Your task to perform on an android device: Turn off the flashlight Image 0: 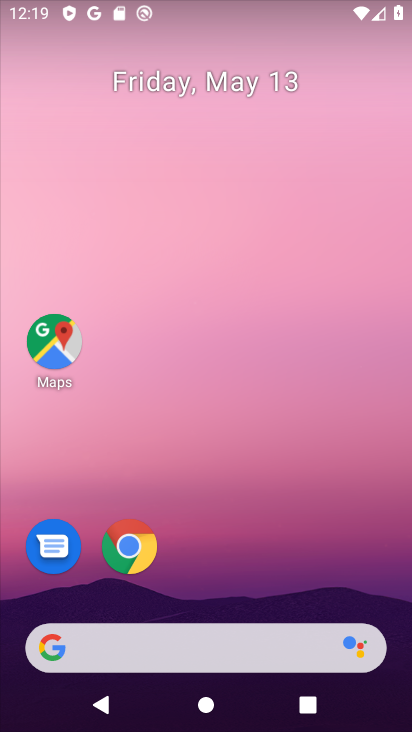
Step 0: drag from (272, 599) to (184, 93)
Your task to perform on an android device: Turn off the flashlight Image 1: 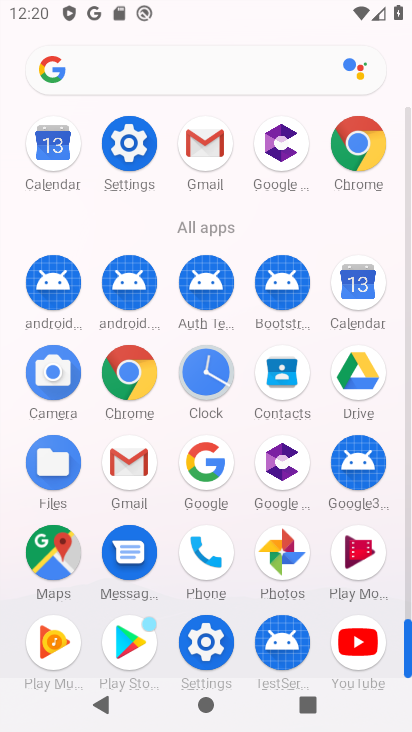
Step 1: drag from (236, 496) to (192, 76)
Your task to perform on an android device: Turn off the flashlight Image 2: 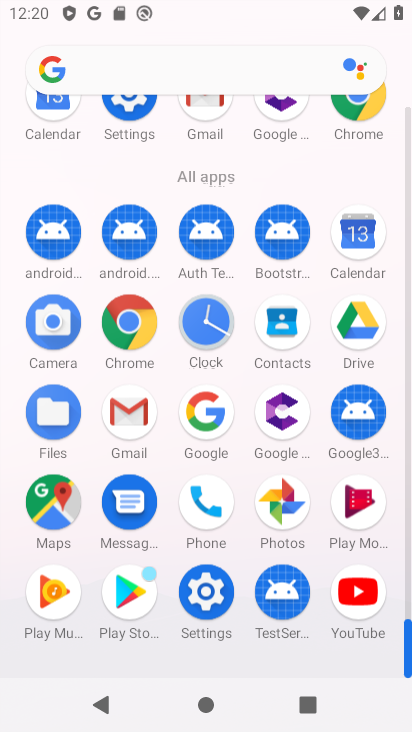
Step 2: drag from (249, 533) to (195, 125)
Your task to perform on an android device: Turn off the flashlight Image 3: 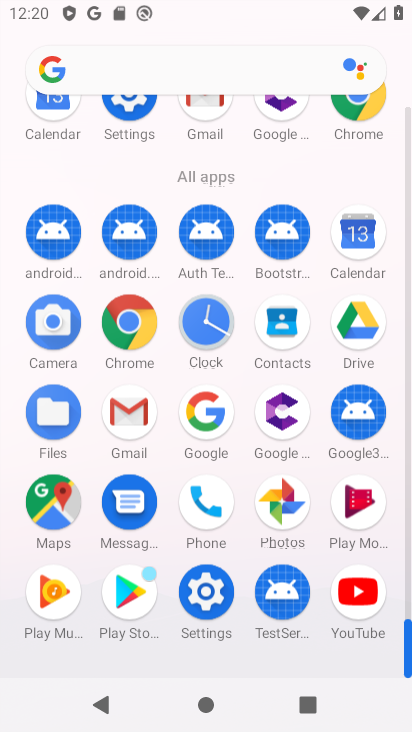
Step 3: drag from (188, 568) to (217, 159)
Your task to perform on an android device: Turn off the flashlight Image 4: 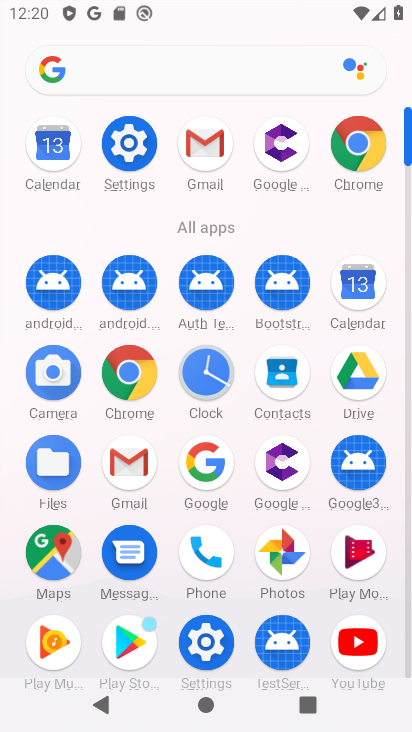
Step 4: drag from (222, 483) to (166, 172)
Your task to perform on an android device: Turn off the flashlight Image 5: 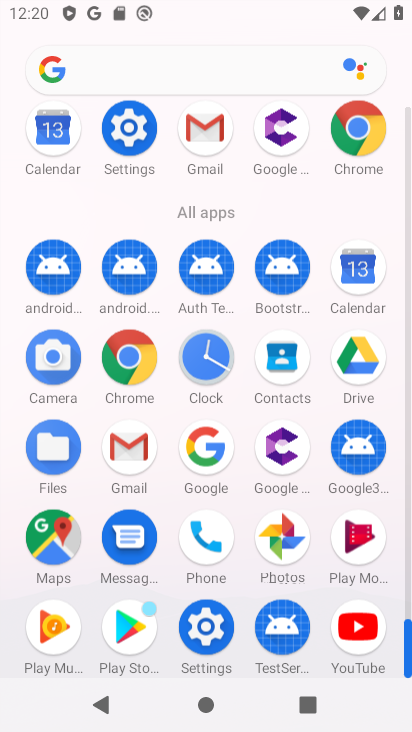
Step 5: drag from (195, 464) to (170, 177)
Your task to perform on an android device: Turn off the flashlight Image 6: 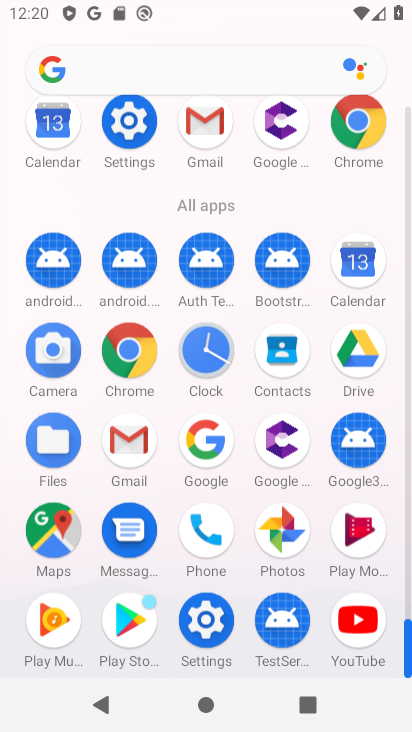
Step 6: drag from (260, 482) to (227, 89)
Your task to perform on an android device: Turn off the flashlight Image 7: 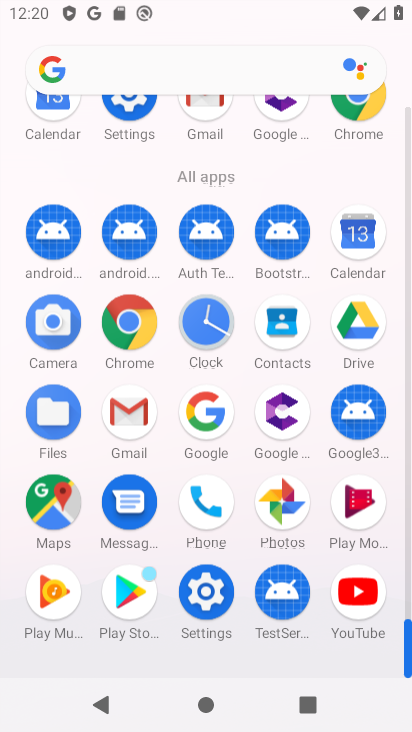
Step 7: drag from (260, 363) to (192, 100)
Your task to perform on an android device: Turn off the flashlight Image 8: 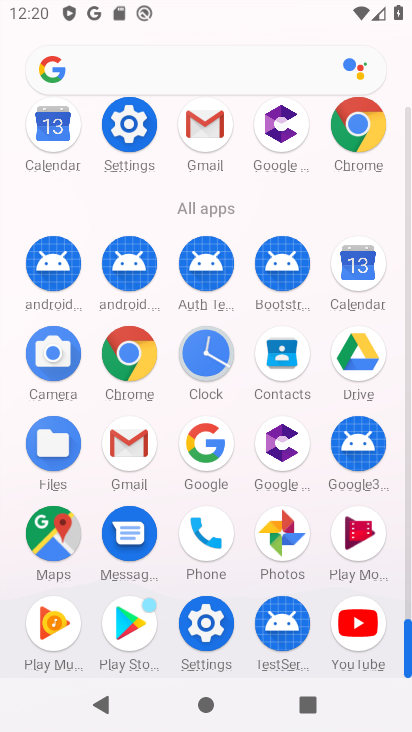
Step 8: drag from (236, 436) to (159, 137)
Your task to perform on an android device: Turn off the flashlight Image 9: 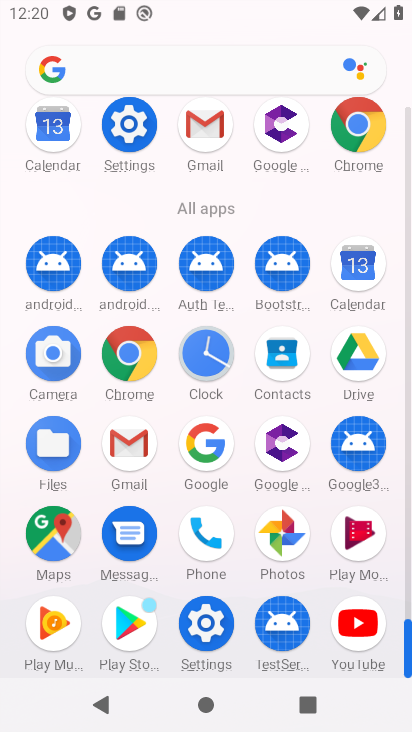
Step 9: drag from (218, 516) to (185, 195)
Your task to perform on an android device: Turn off the flashlight Image 10: 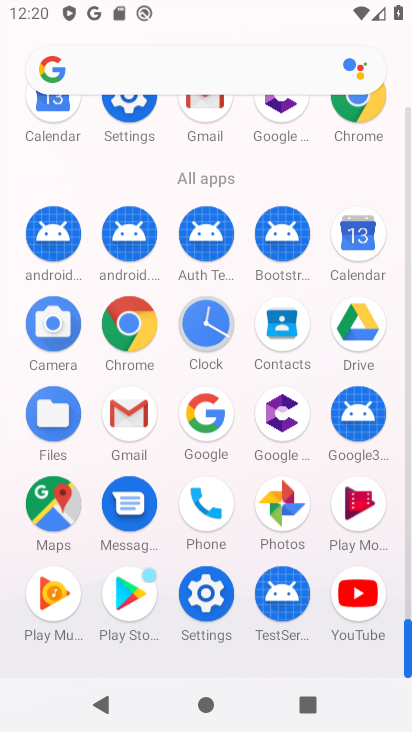
Step 10: drag from (246, 482) to (197, 128)
Your task to perform on an android device: Turn off the flashlight Image 11: 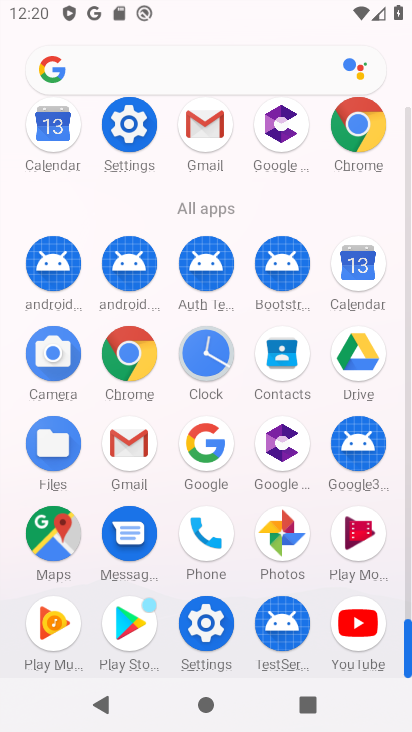
Step 11: drag from (212, 442) to (223, 198)
Your task to perform on an android device: Turn off the flashlight Image 12: 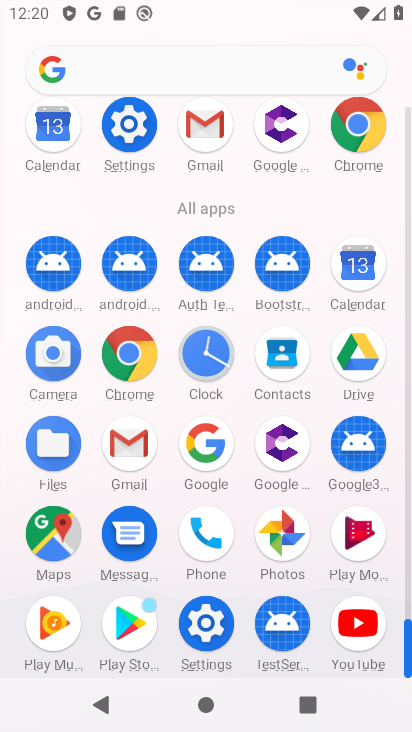
Step 12: drag from (238, 349) to (228, 183)
Your task to perform on an android device: Turn off the flashlight Image 13: 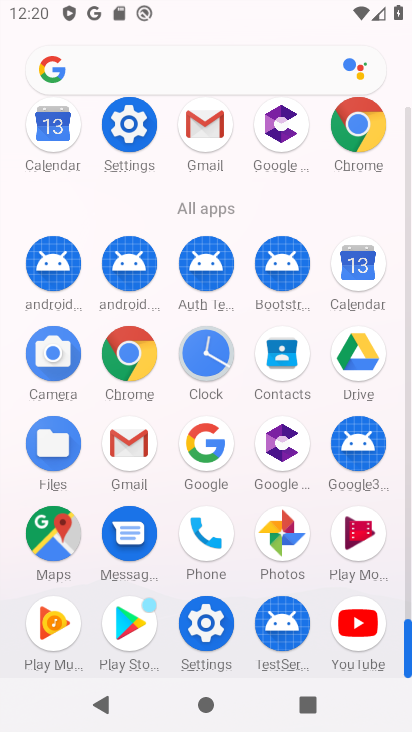
Step 13: drag from (222, 364) to (191, 182)
Your task to perform on an android device: Turn off the flashlight Image 14: 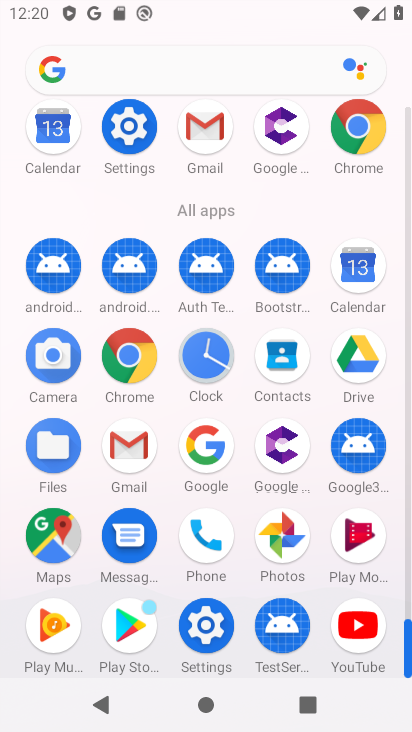
Step 14: drag from (140, 398) to (120, 156)
Your task to perform on an android device: Turn off the flashlight Image 15: 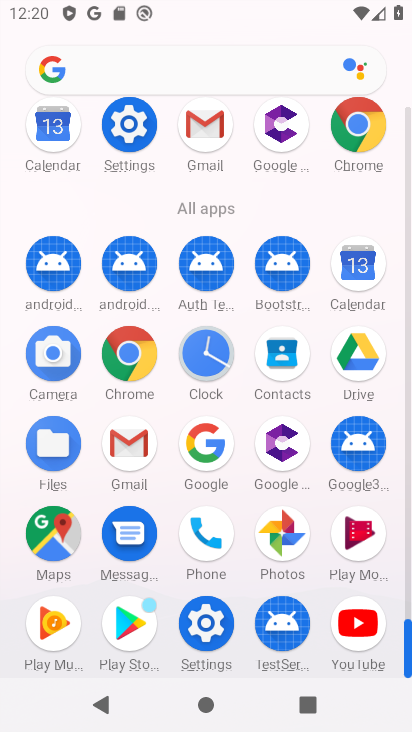
Step 15: click (164, 206)
Your task to perform on an android device: Turn off the flashlight Image 16: 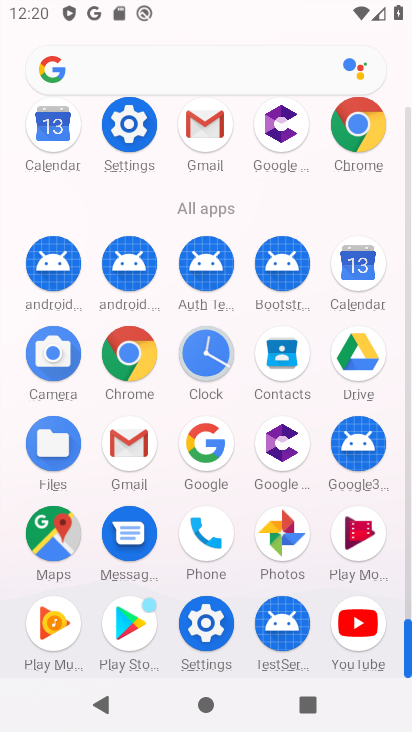
Step 16: task complete